Your task to perform on an android device: install app "Google Home" Image 0: 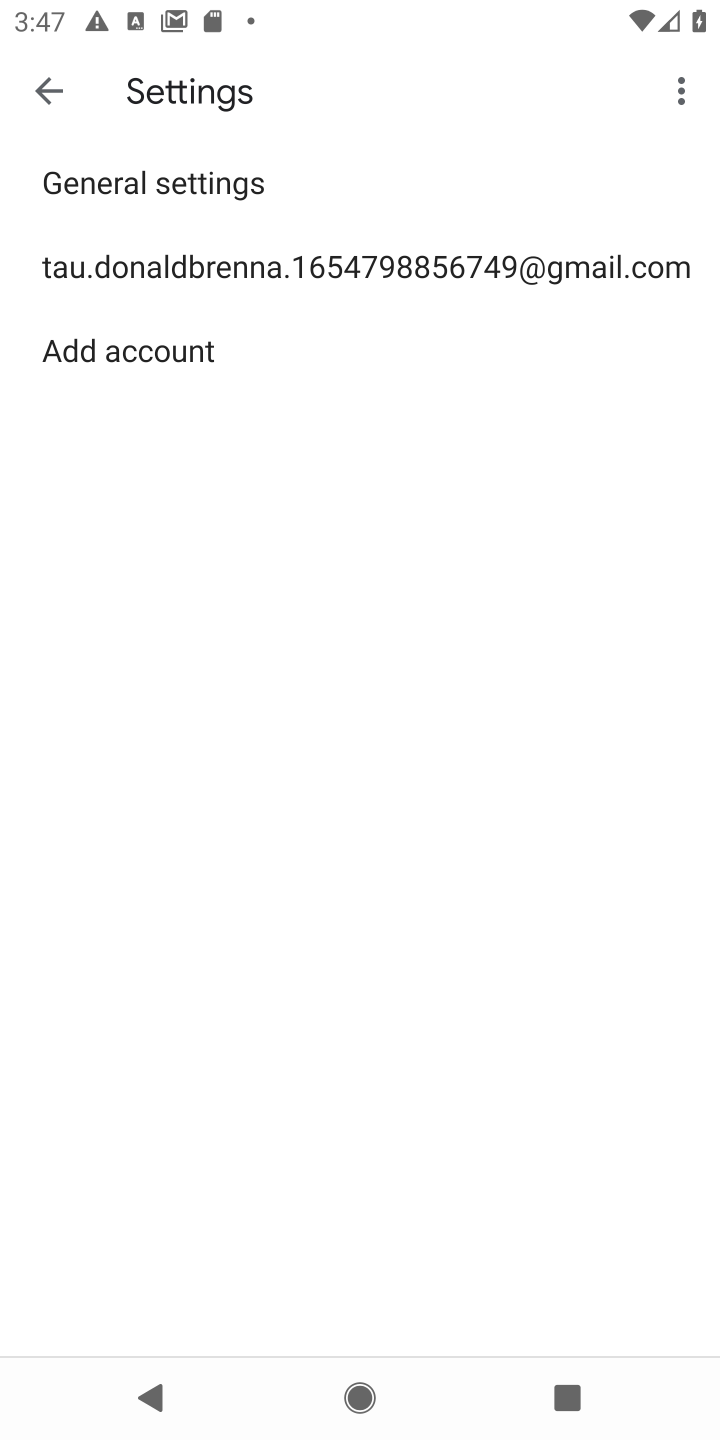
Step 0: press home button
Your task to perform on an android device: install app "Google Home" Image 1: 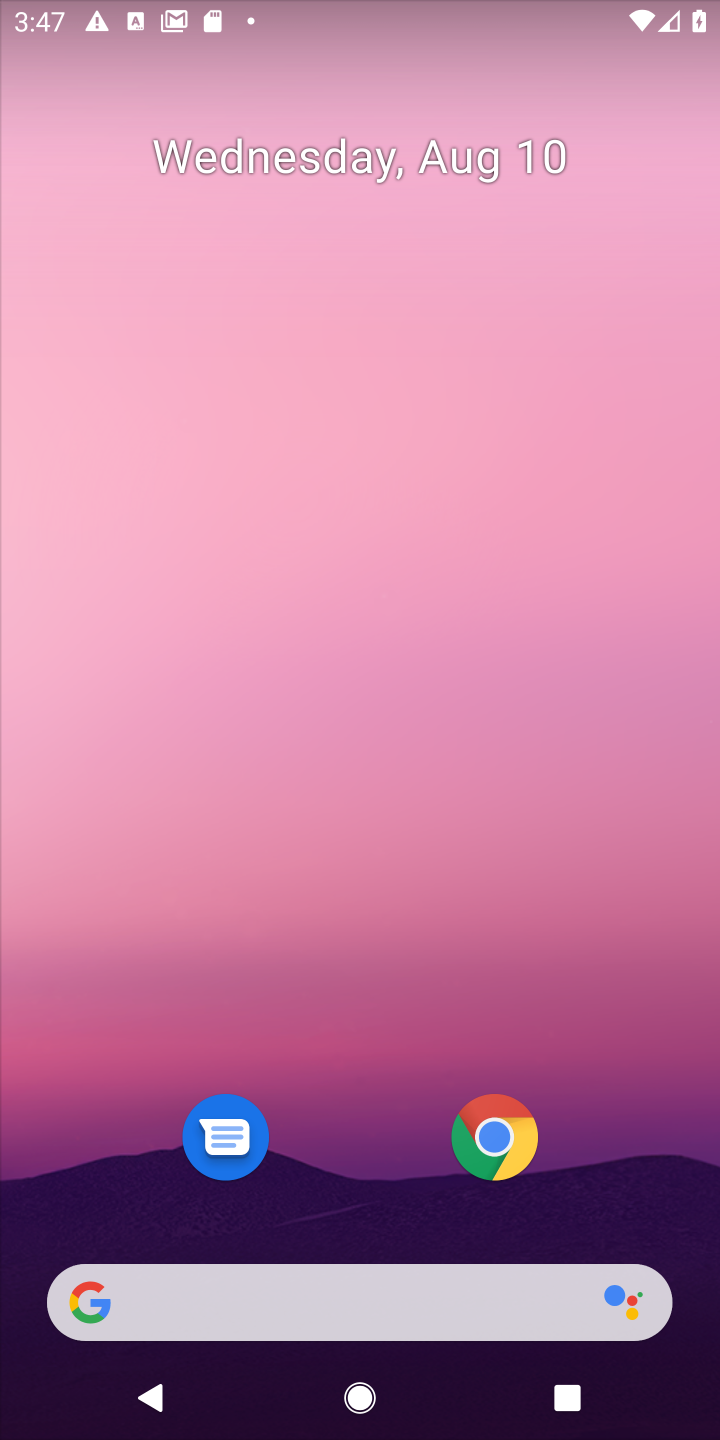
Step 1: drag from (286, 1204) to (384, 194)
Your task to perform on an android device: install app "Google Home" Image 2: 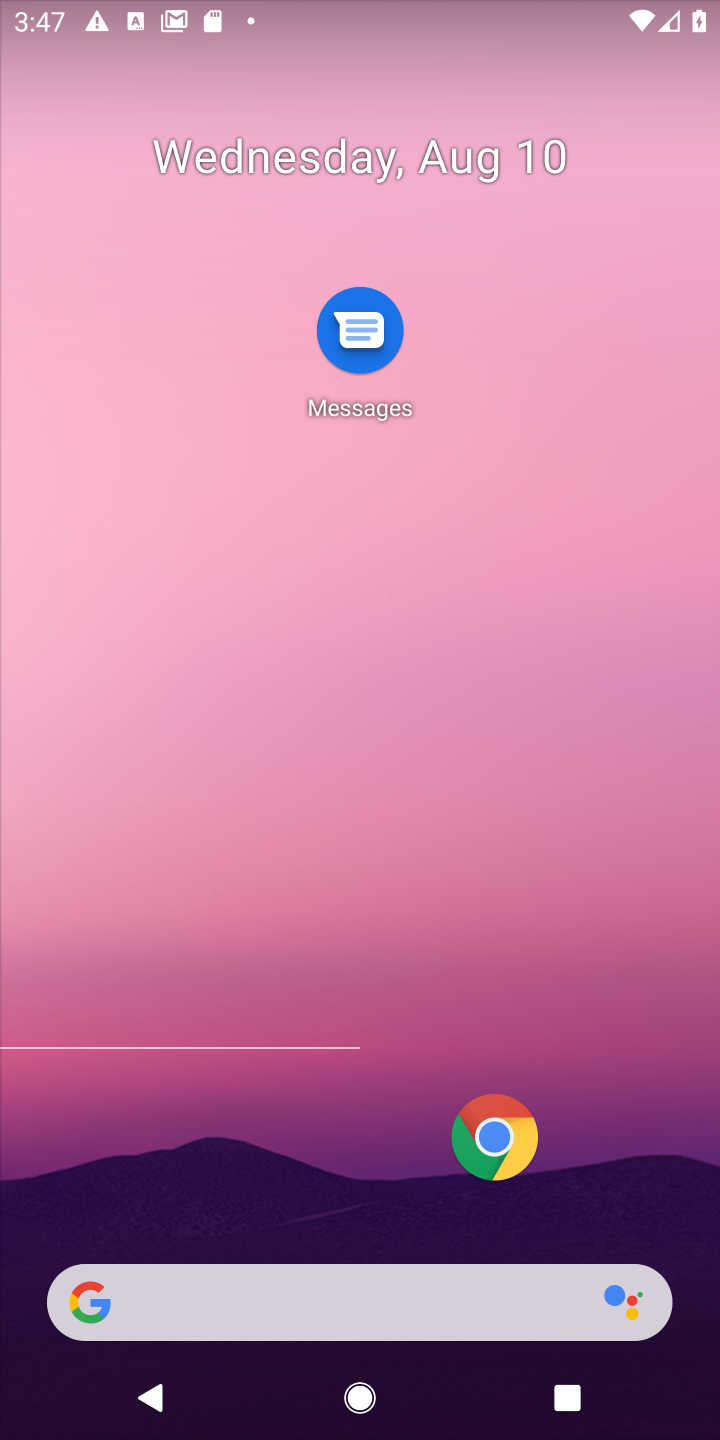
Step 2: drag from (382, 1058) to (406, 305)
Your task to perform on an android device: install app "Google Home" Image 3: 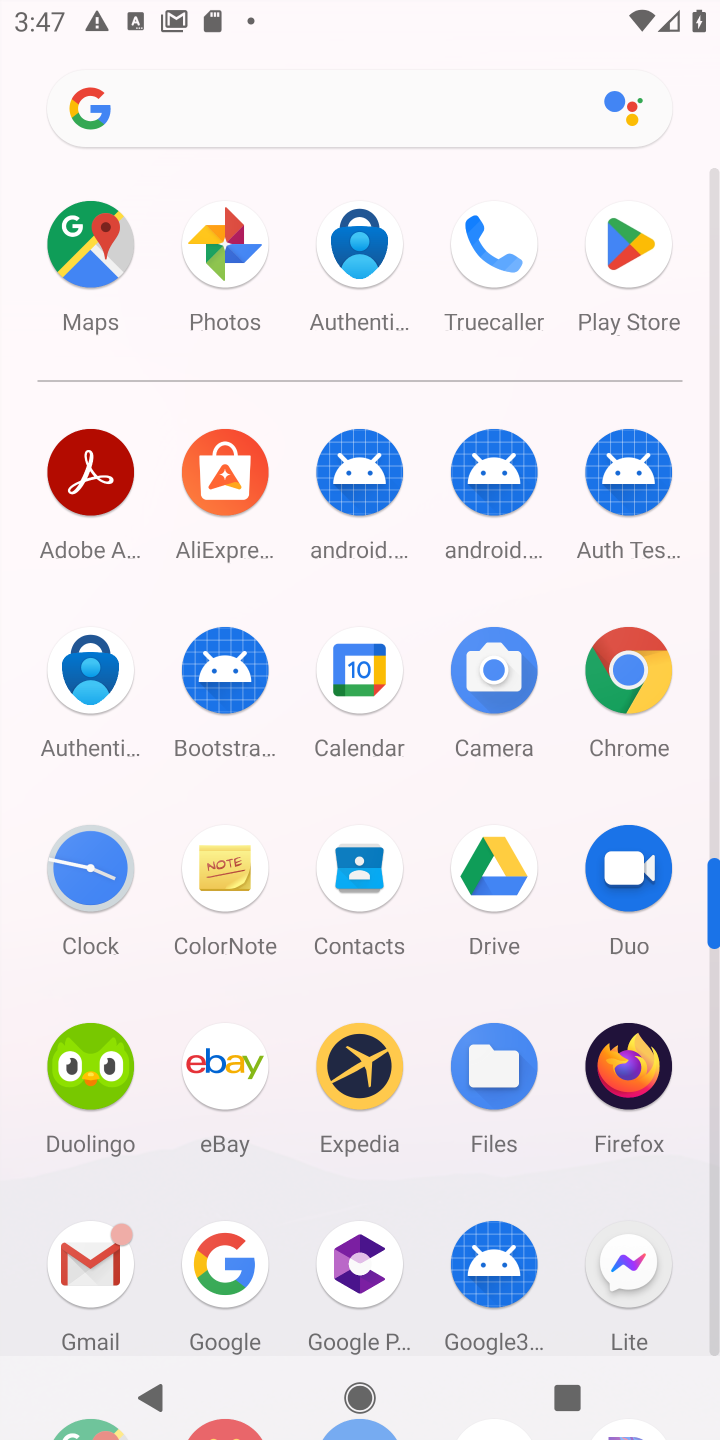
Step 3: click (656, 285)
Your task to perform on an android device: install app "Google Home" Image 4: 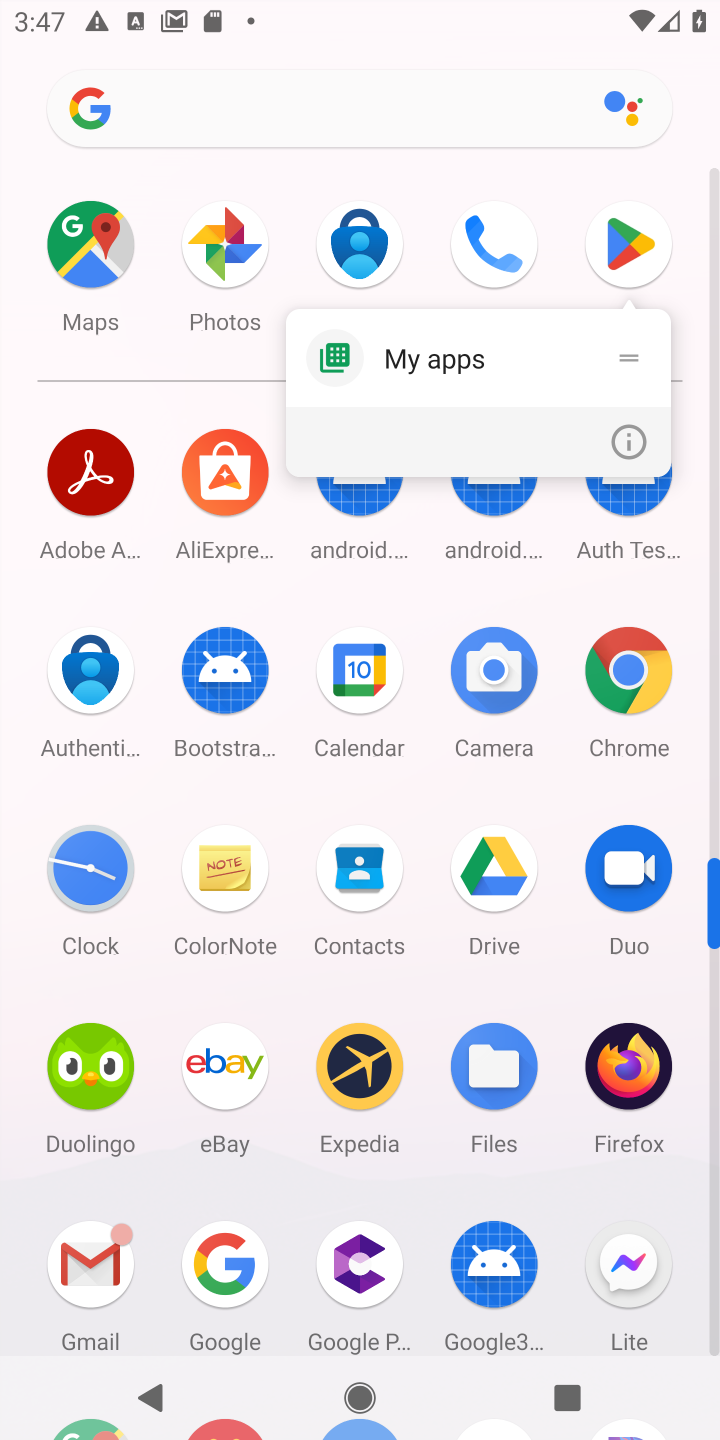
Step 4: click (634, 257)
Your task to perform on an android device: install app "Google Home" Image 5: 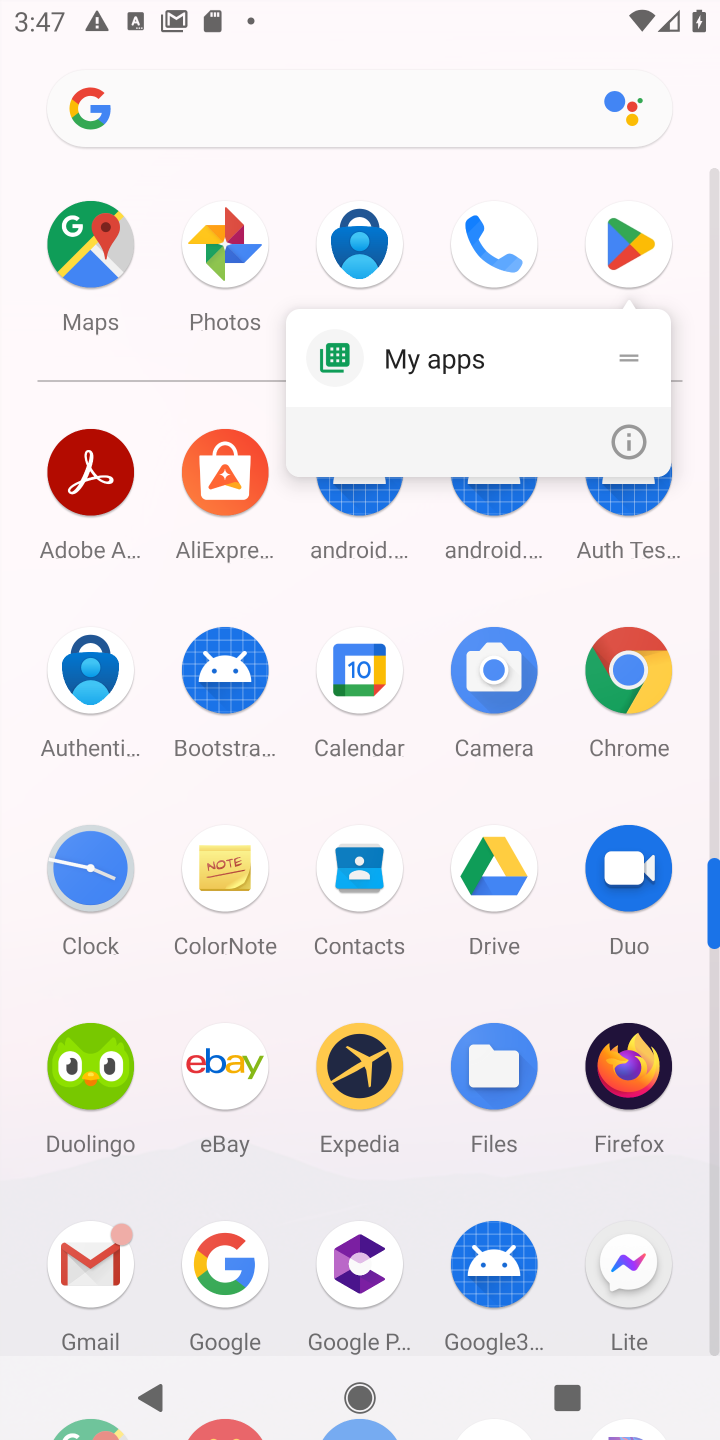
Step 5: click (634, 257)
Your task to perform on an android device: install app "Google Home" Image 6: 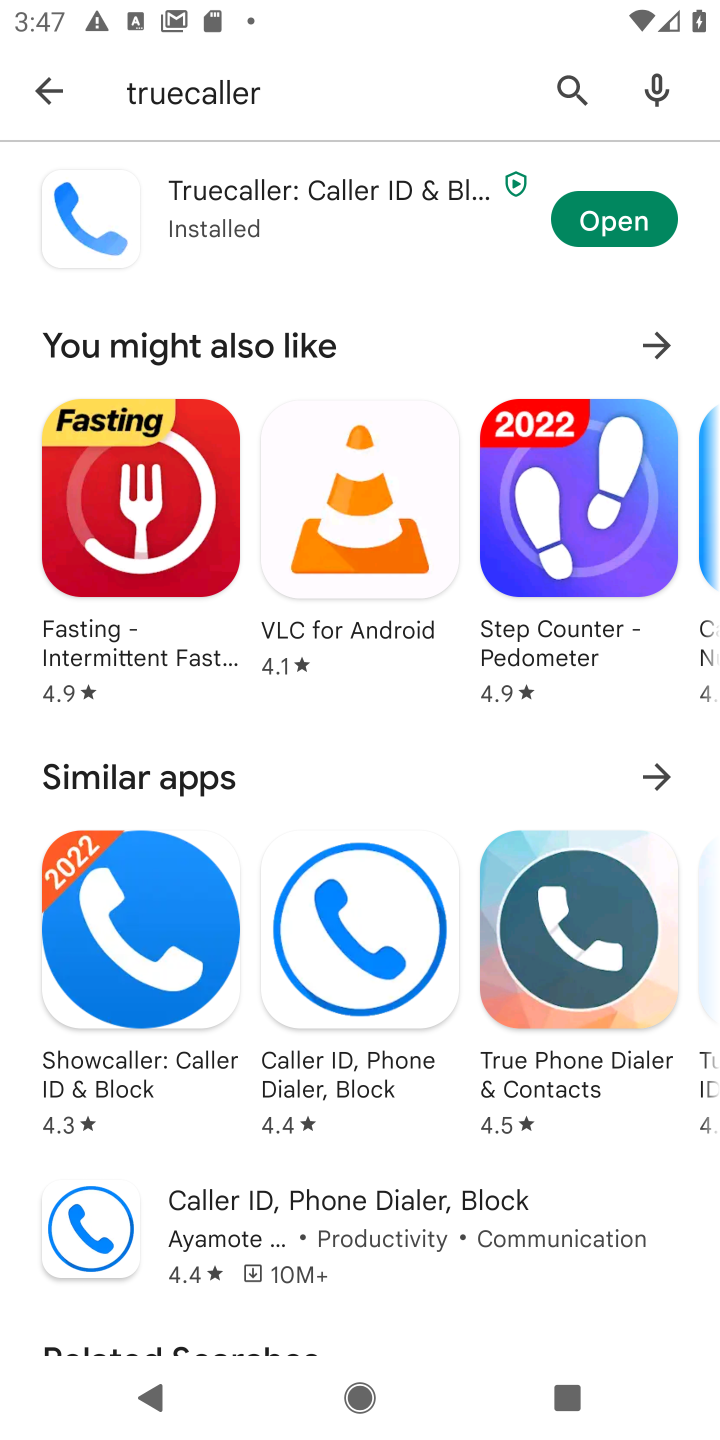
Step 6: click (296, 101)
Your task to perform on an android device: install app "Google Home" Image 7: 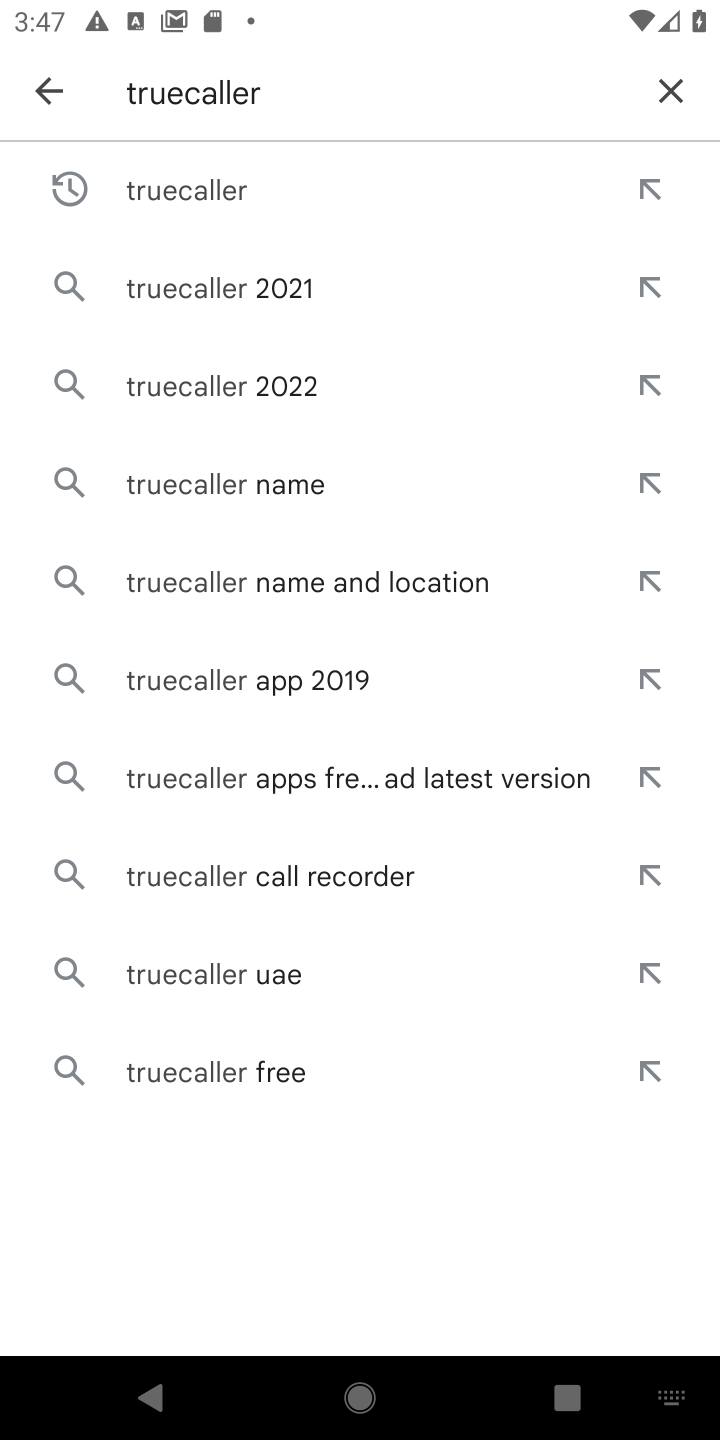
Step 7: click (662, 92)
Your task to perform on an android device: install app "Google Home" Image 8: 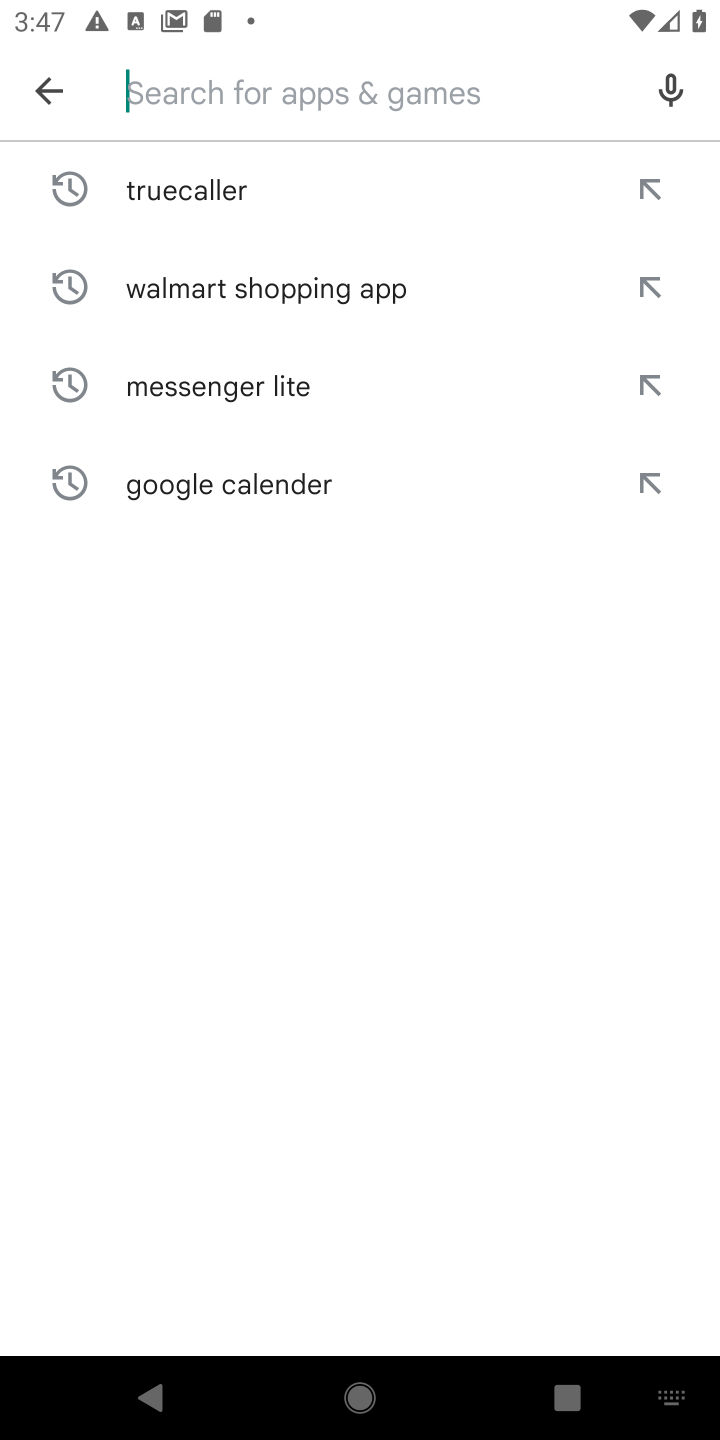
Step 8: type "google home"
Your task to perform on an android device: install app "Google Home" Image 9: 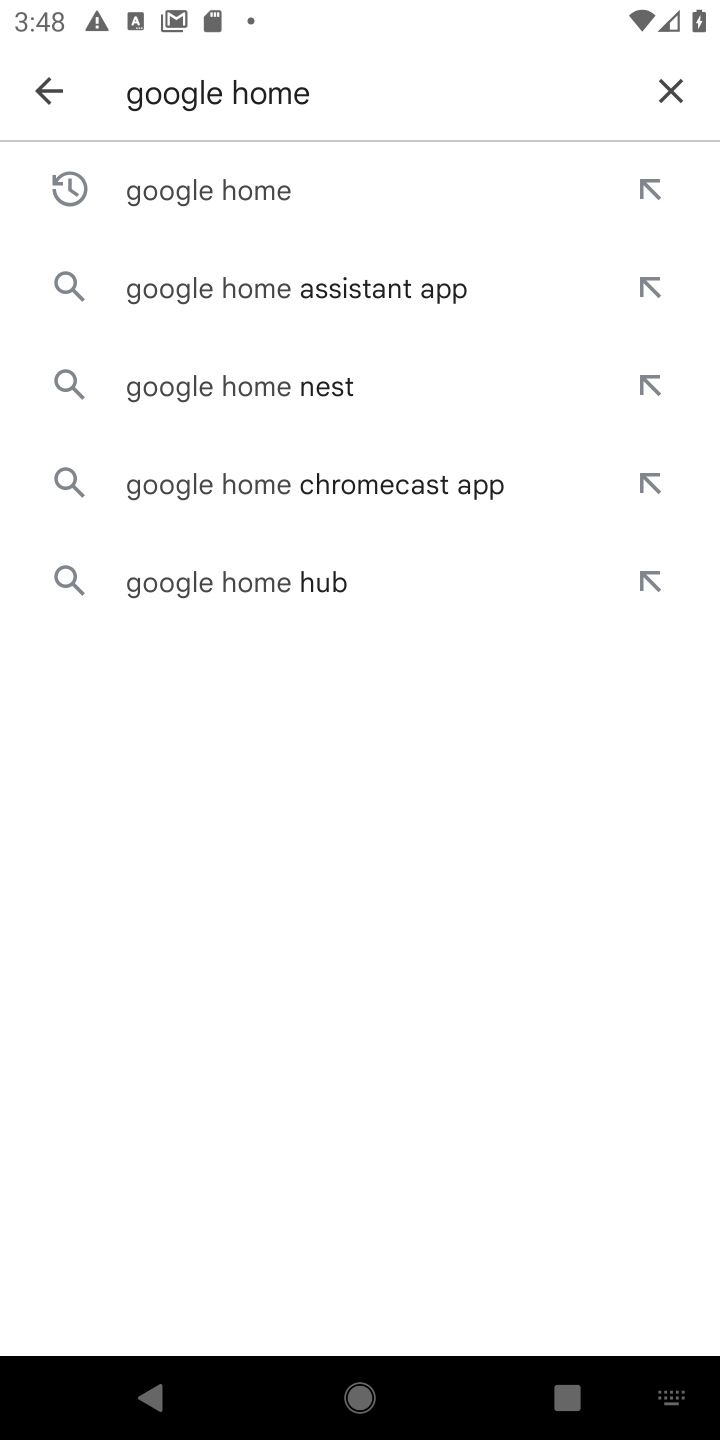
Step 9: click (287, 168)
Your task to perform on an android device: install app "Google Home" Image 10: 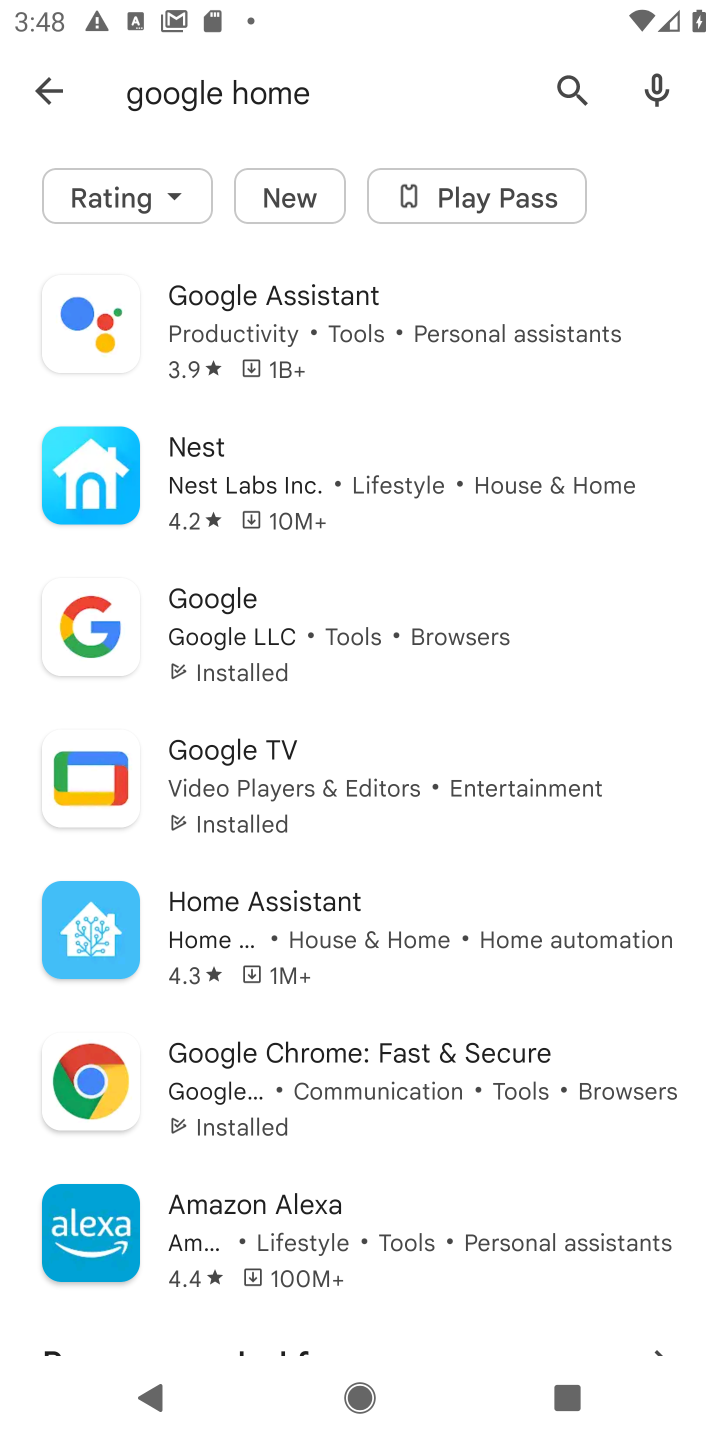
Step 10: task complete